Your task to perform on an android device: Go to settings Image 0: 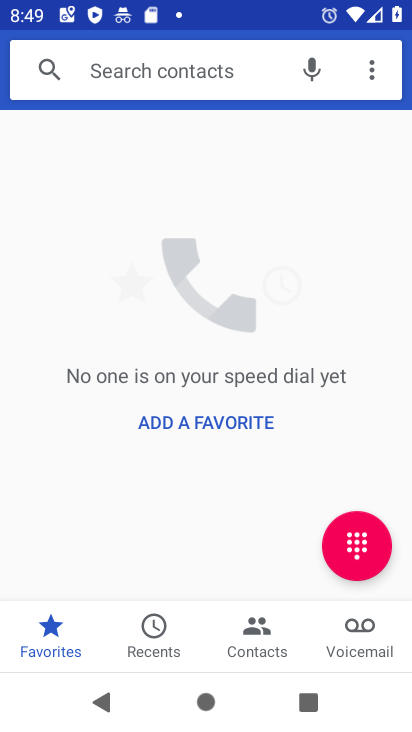
Step 0: press home button
Your task to perform on an android device: Go to settings Image 1: 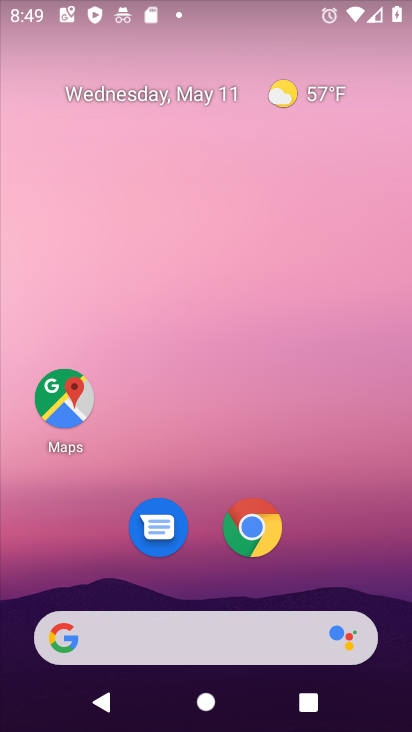
Step 1: drag from (372, 588) to (352, 0)
Your task to perform on an android device: Go to settings Image 2: 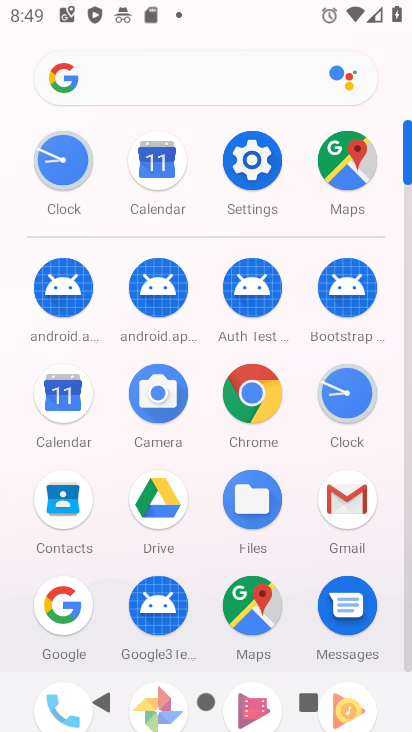
Step 2: click (251, 151)
Your task to perform on an android device: Go to settings Image 3: 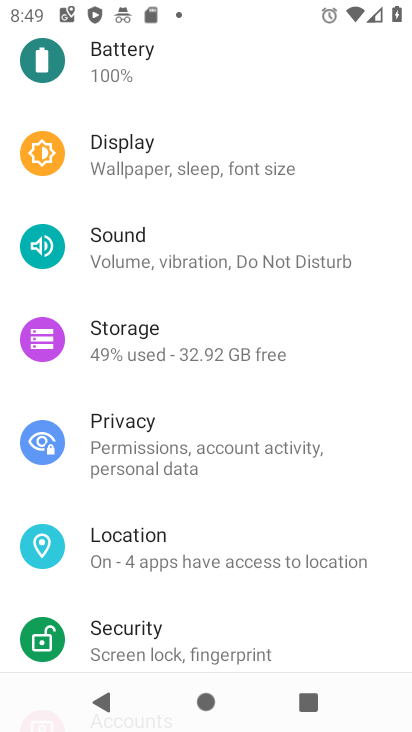
Step 3: task complete